Your task to perform on an android device: Open Chrome and go to settings Image 0: 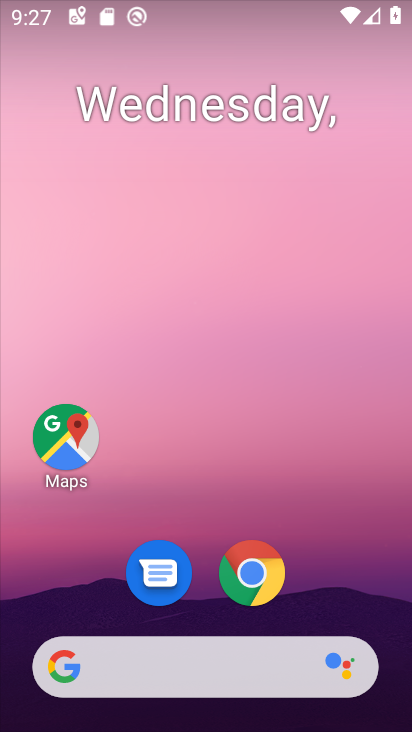
Step 0: click (260, 584)
Your task to perform on an android device: Open Chrome and go to settings Image 1: 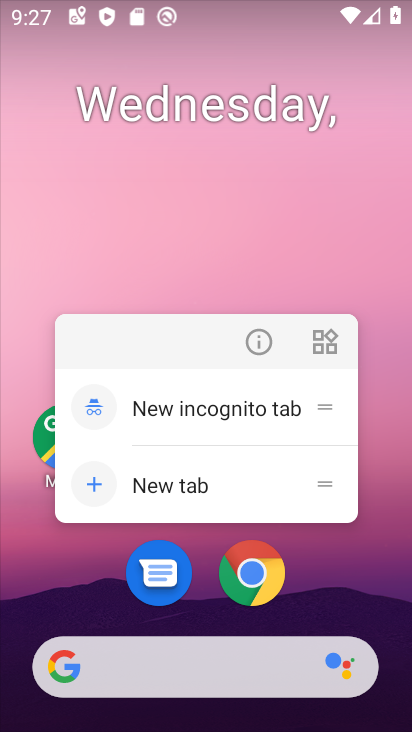
Step 1: click (260, 585)
Your task to perform on an android device: Open Chrome and go to settings Image 2: 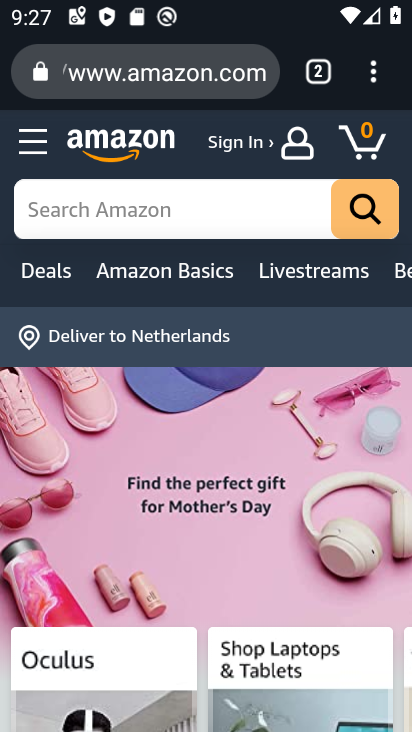
Step 2: click (369, 75)
Your task to perform on an android device: Open Chrome and go to settings Image 3: 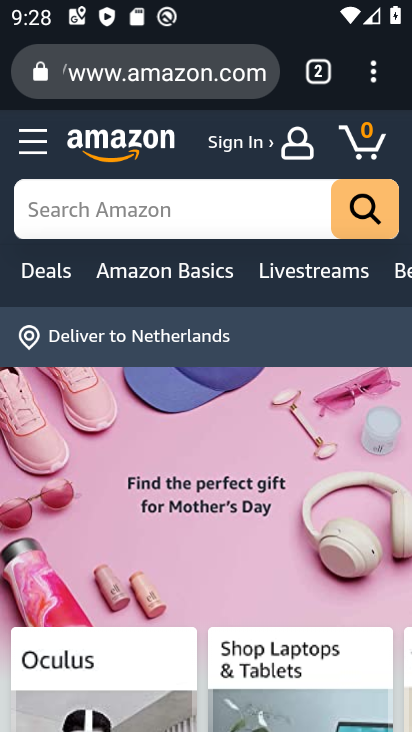
Step 3: click (369, 76)
Your task to perform on an android device: Open Chrome and go to settings Image 4: 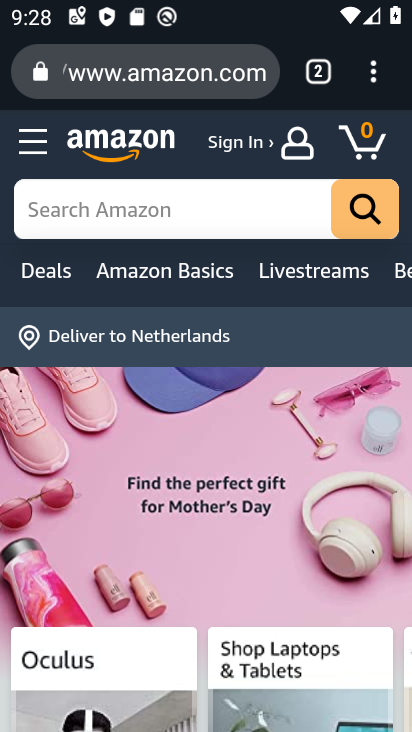
Step 4: click (375, 73)
Your task to perform on an android device: Open Chrome and go to settings Image 5: 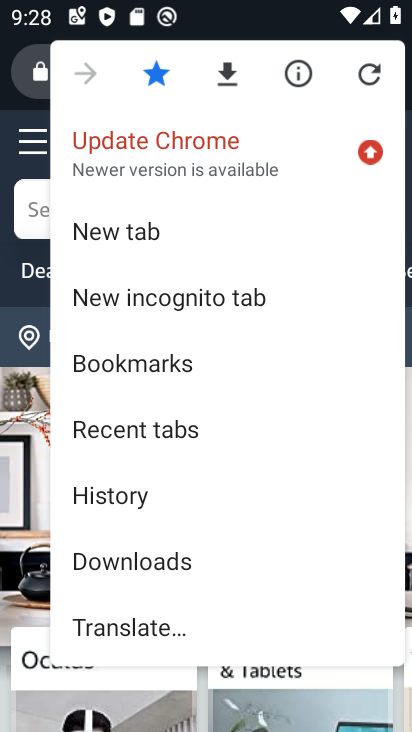
Step 5: drag from (287, 603) to (278, 234)
Your task to perform on an android device: Open Chrome and go to settings Image 6: 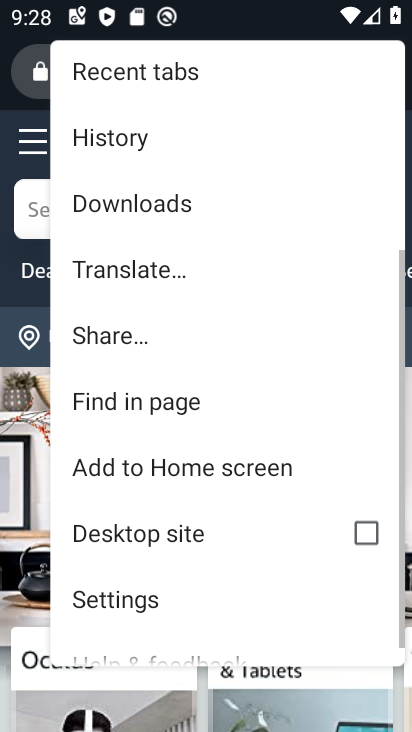
Step 6: click (104, 588)
Your task to perform on an android device: Open Chrome and go to settings Image 7: 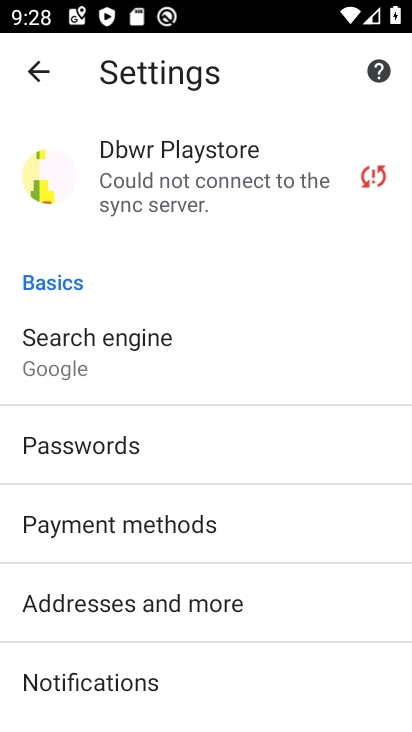
Step 7: task complete